Your task to perform on an android device: Open sound settings Image 0: 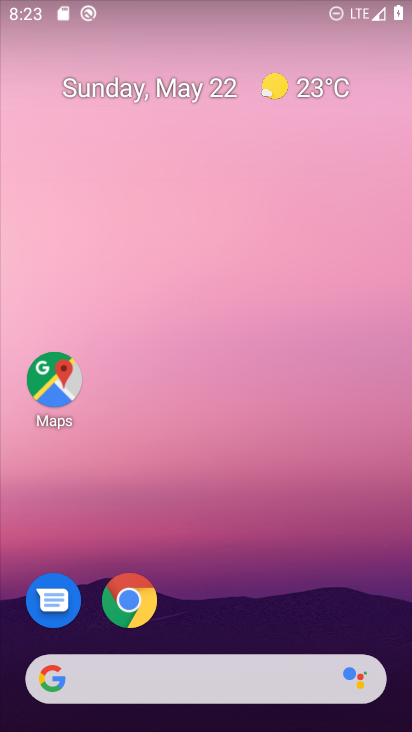
Step 0: drag from (361, 608) to (257, 67)
Your task to perform on an android device: Open sound settings Image 1: 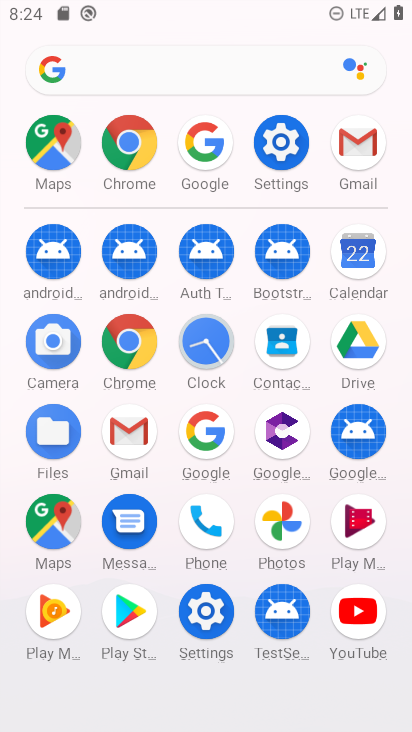
Step 1: click (196, 620)
Your task to perform on an android device: Open sound settings Image 2: 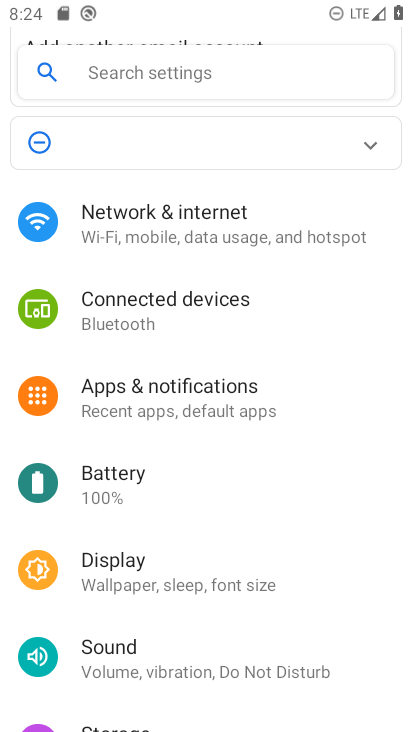
Step 2: click (126, 644)
Your task to perform on an android device: Open sound settings Image 3: 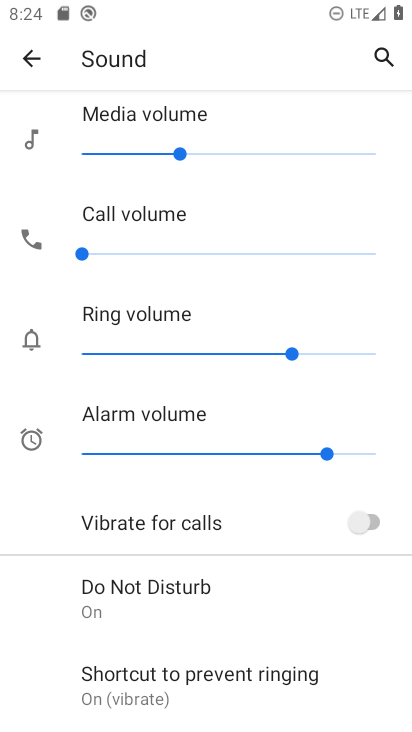
Step 3: task complete